Your task to perform on an android device: Search for pizza restaurants on Maps Image 0: 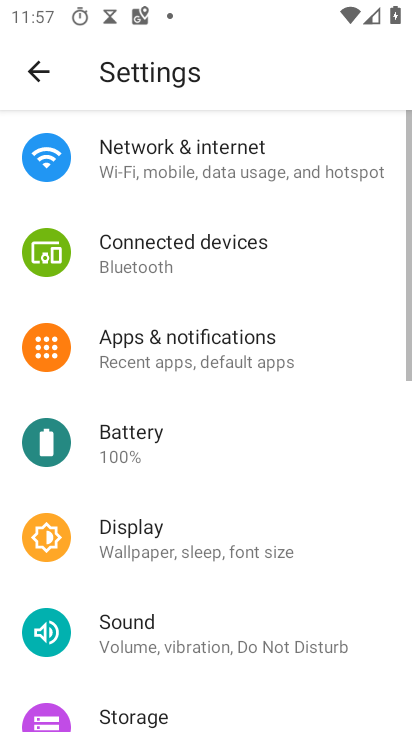
Step 0: press home button
Your task to perform on an android device: Search for pizza restaurants on Maps Image 1: 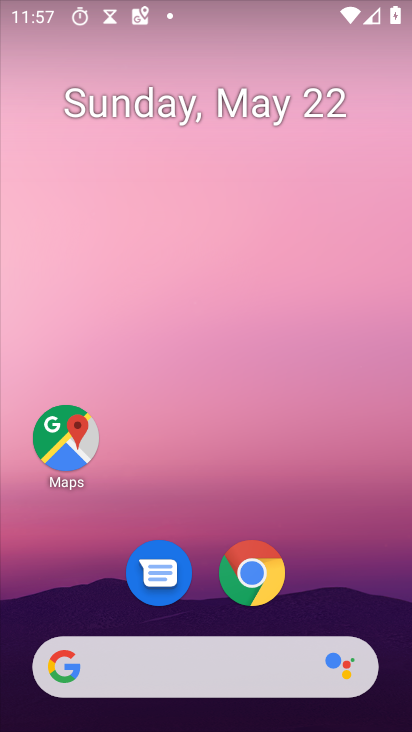
Step 1: click (57, 431)
Your task to perform on an android device: Search for pizza restaurants on Maps Image 2: 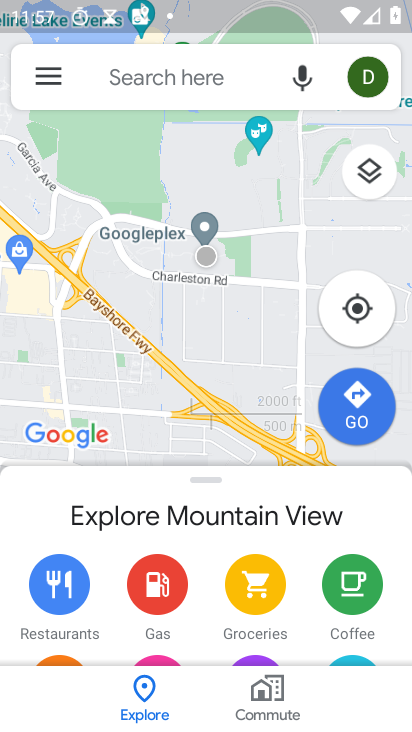
Step 2: click (139, 84)
Your task to perform on an android device: Search for pizza restaurants on Maps Image 3: 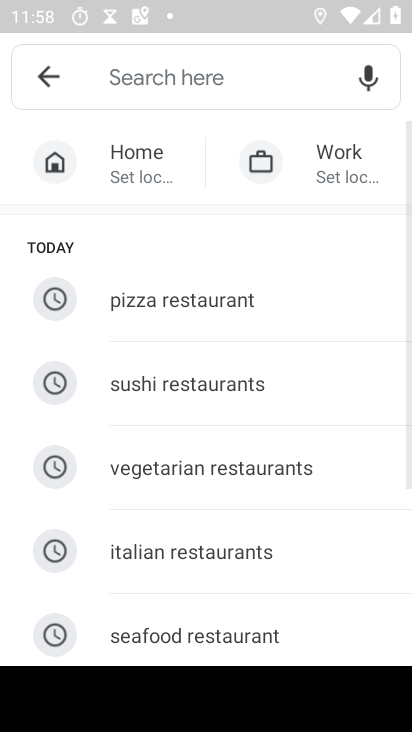
Step 3: click (209, 299)
Your task to perform on an android device: Search for pizza restaurants on Maps Image 4: 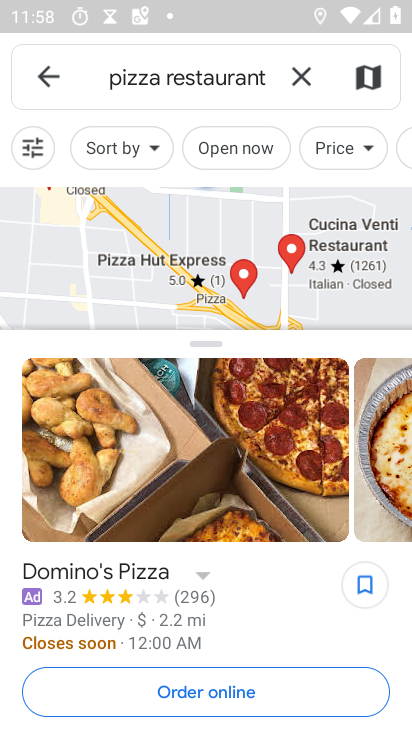
Step 4: task complete